Your task to perform on an android device: visit the assistant section in the google photos Image 0: 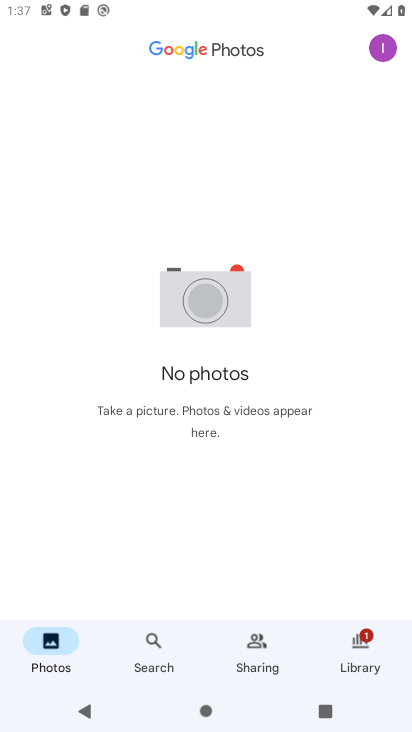
Step 0: press home button
Your task to perform on an android device: visit the assistant section in the google photos Image 1: 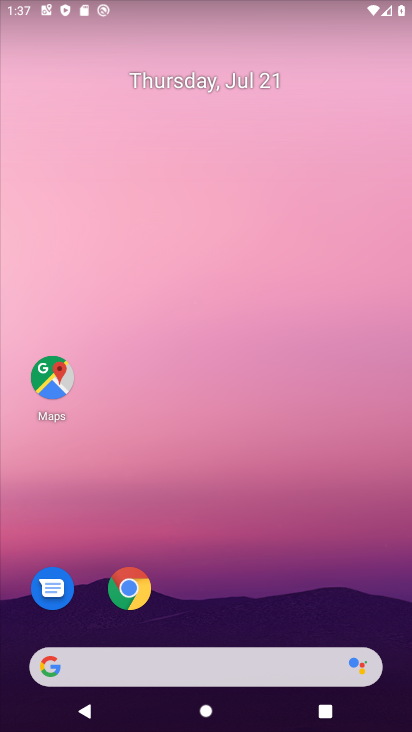
Step 1: drag from (227, 629) to (154, 120)
Your task to perform on an android device: visit the assistant section in the google photos Image 2: 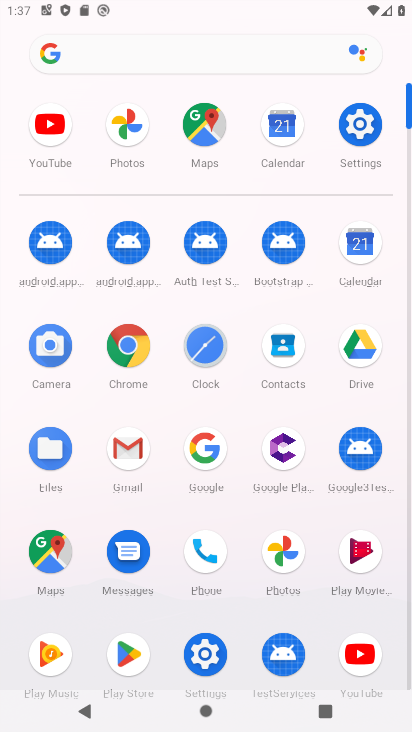
Step 2: click (272, 565)
Your task to perform on an android device: visit the assistant section in the google photos Image 3: 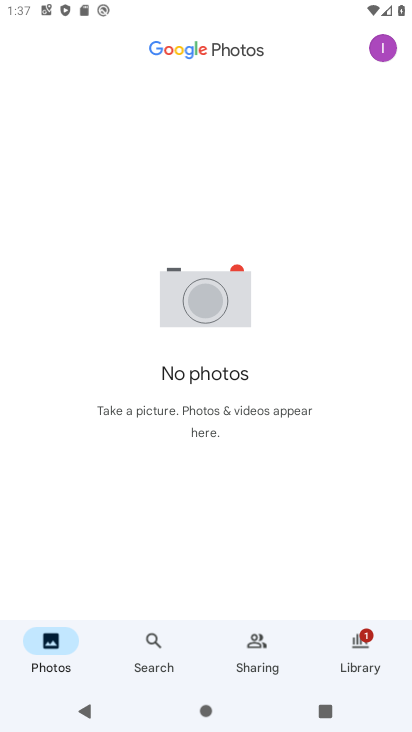
Step 3: click (251, 651)
Your task to perform on an android device: visit the assistant section in the google photos Image 4: 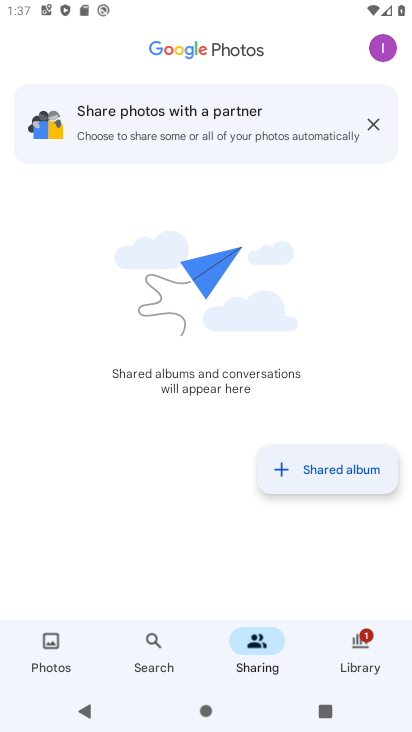
Step 4: click (351, 659)
Your task to perform on an android device: visit the assistant section in the google photos Image 5: 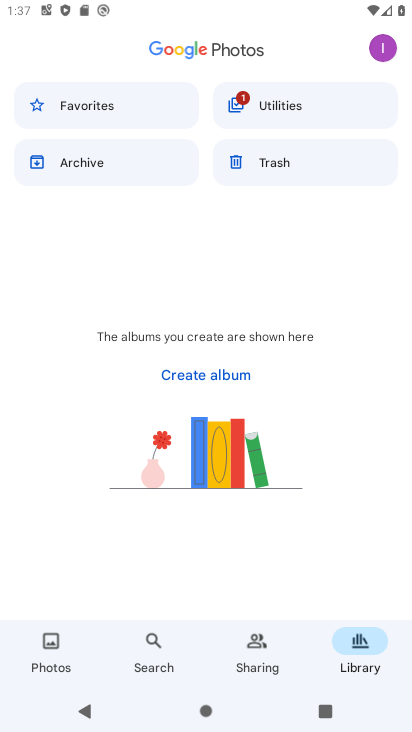
Step 5: click (374, 39)
Your task to perform on an android device: visit the assistant section in the google photos Image 6: 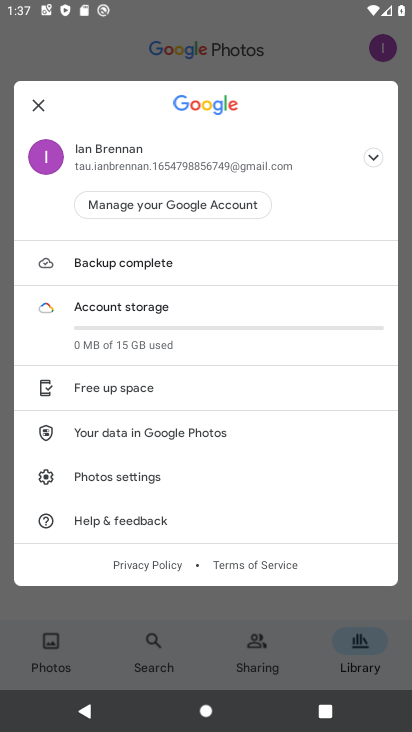
Step 6: task complete